Your task to perform on an android device: clear history in the chrome app Image 0: 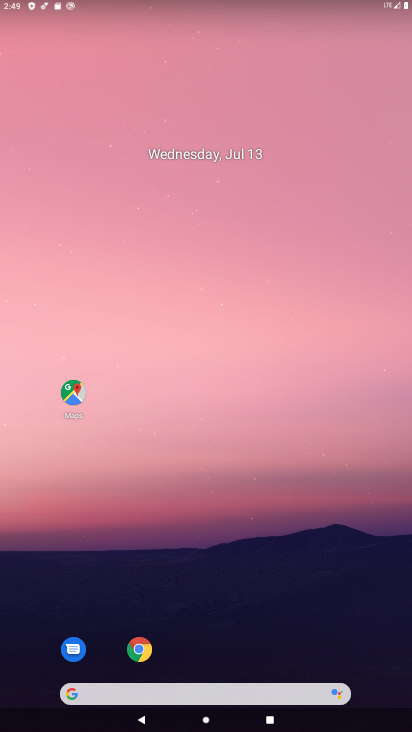
Step 0: press home button
Your task to perform on an android device: clear history in the chrome app Image 1: 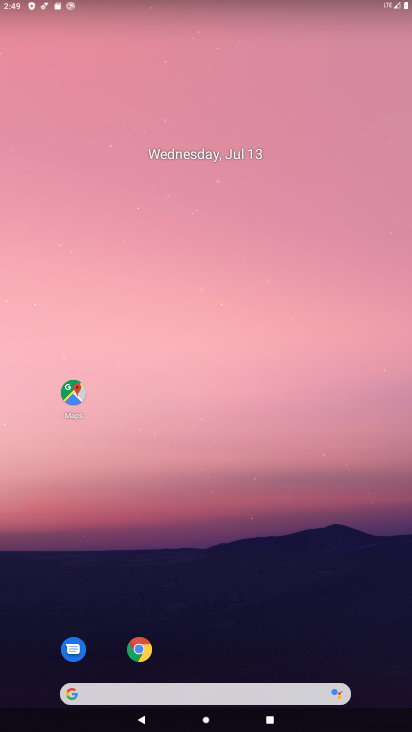
Step 1: click (138, 646)
Your task to perform on an android device: clear history in the chrome app Image 2: 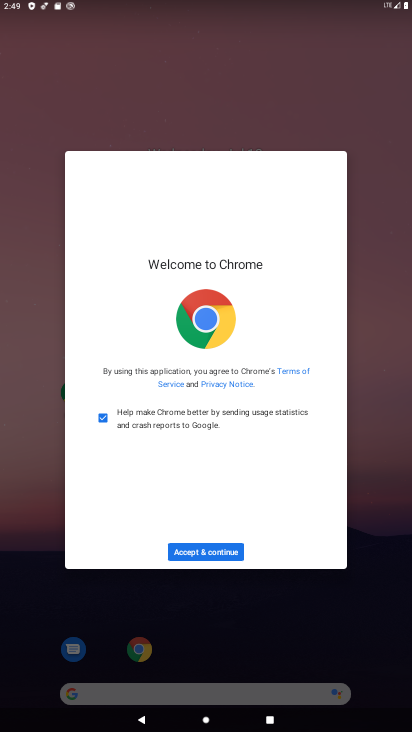
Step 2: click (206, 549)
Your task to perform on an android device: clear history in the chrome app Image 3: 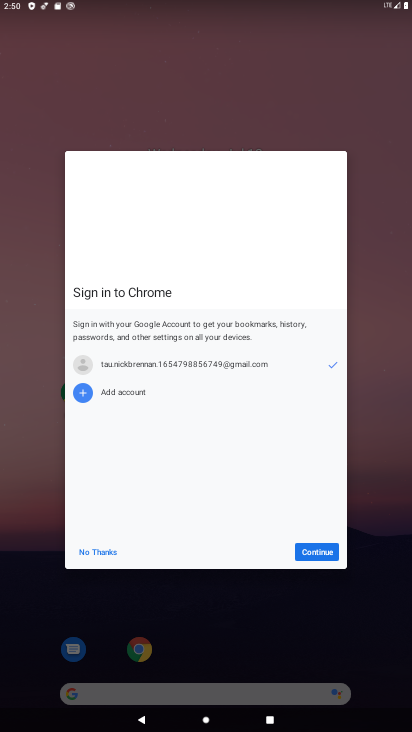
Step 3: click (317, 549)
Your task to perform on an android device: clear history in the chrome app Image 4: 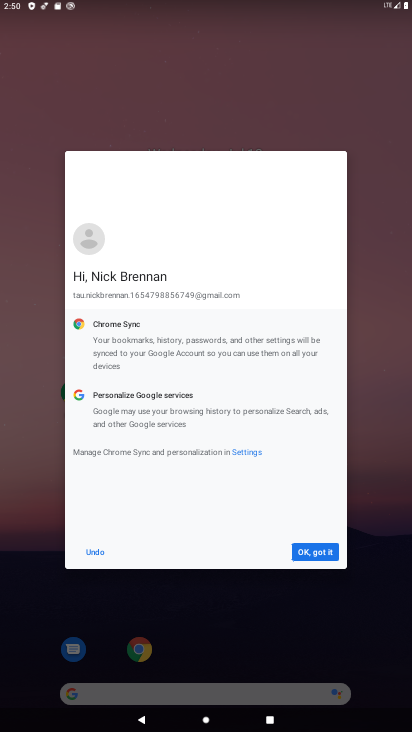
Step 4: click (317, 549)
Your task to perform on an android device: clear history in the chrome app Image 5: 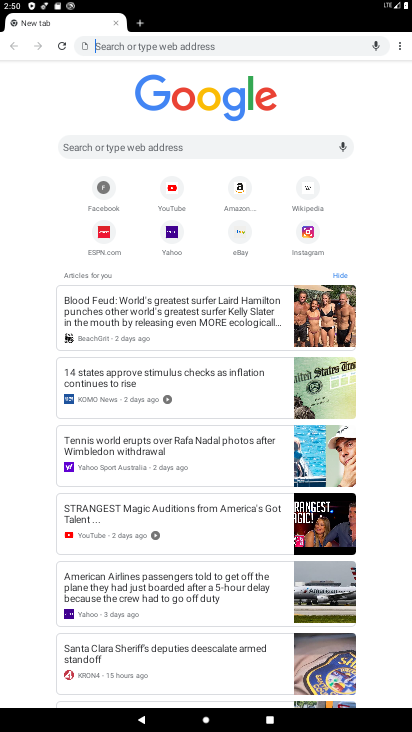
Step 5: click (401, 43)
Your task to perform on an android device: clear history in the chrome app Image 6: 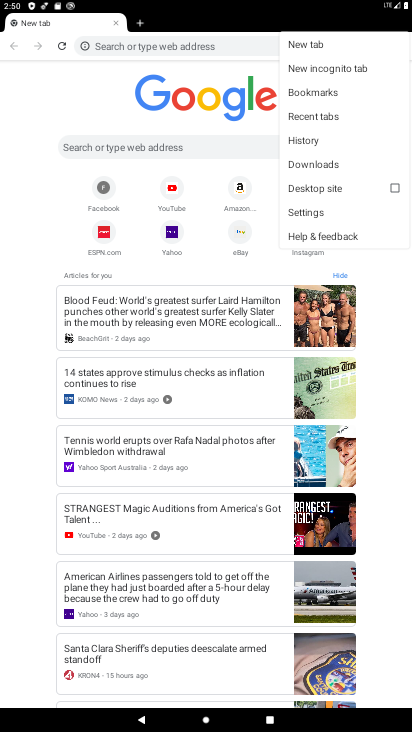
Step 6: click (319, 141)
Your task to perform on an android device: clear history in the chrome app Image 7: 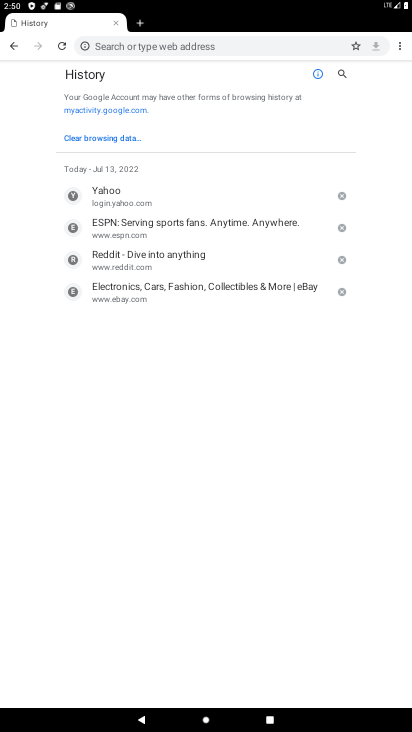
Step 7: click (99, 134)
Your task to perform on an android device: clear history in the chrome app Image 8: 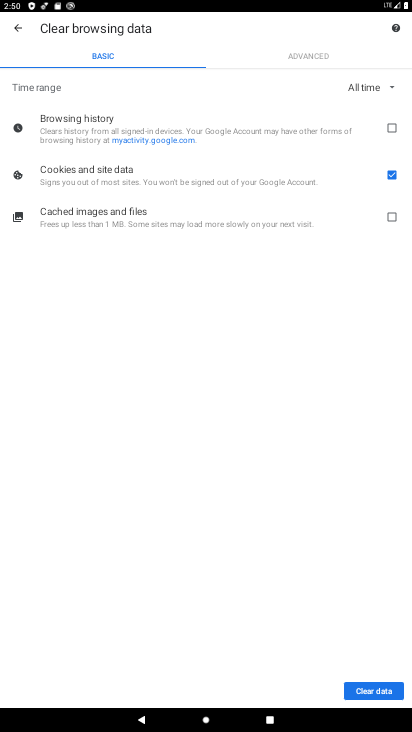
Step 8: click (391, 128)
Your task to perform on an android device: clear history in the chrome app Image 9: 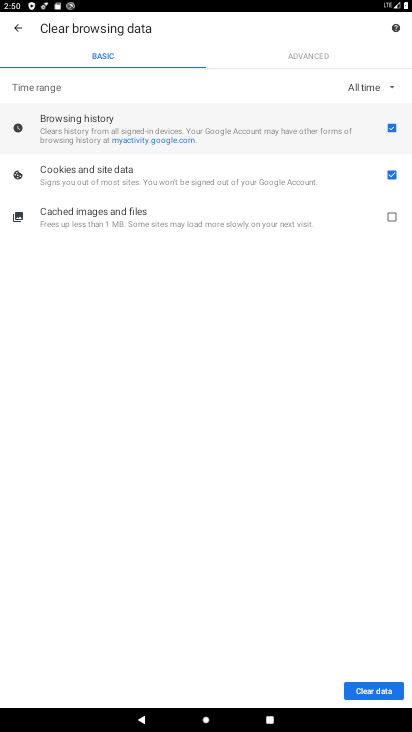
Step 9: click (393, 213)
Your task to perform on an android device: clear history in the chrome app Image 10: 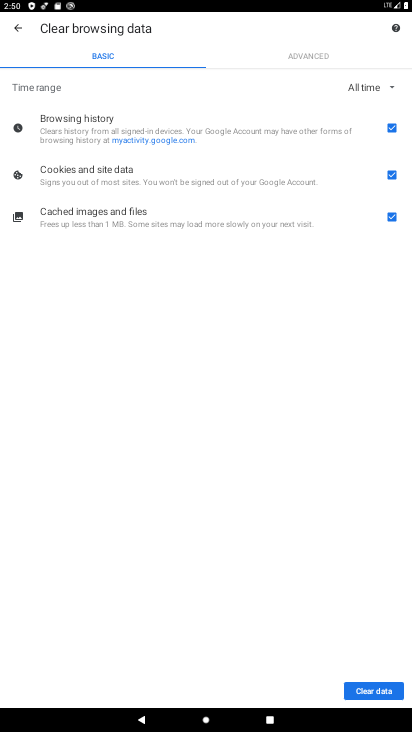
Step 10: click (374, 692)
Your task to perform on an android device: clear history in the chrome app Image 11: 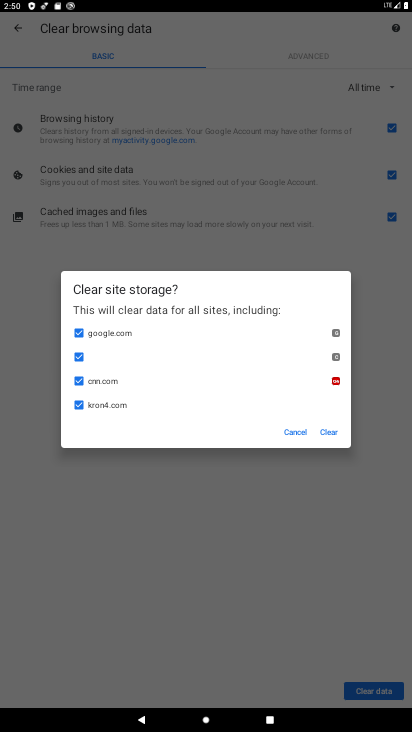
Step 11: click (329, 435)
Your task to perform on an android device: clear history in the chrome app Image 12: 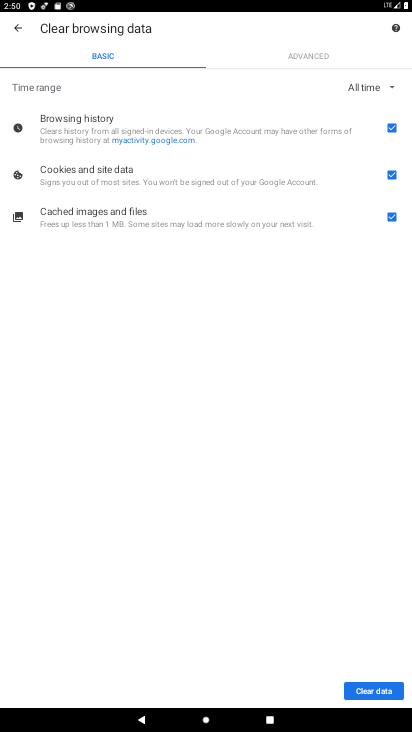
Step 12: task complete